Your task to perform on an android device: Open the map Image 0: 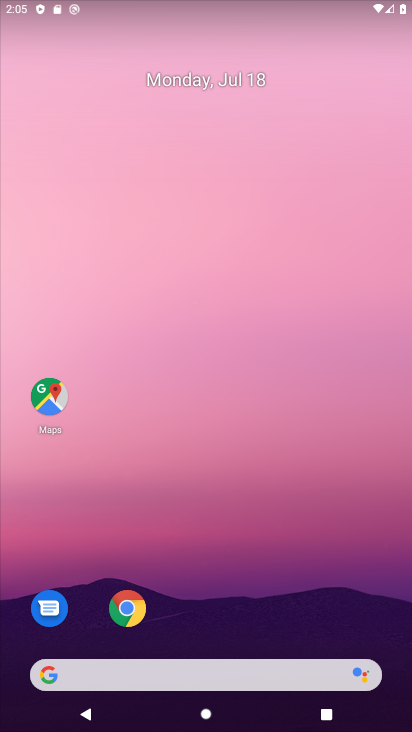
Step 0: click (51, 384)
Your task to perform on an android device: Open the map Image 1: 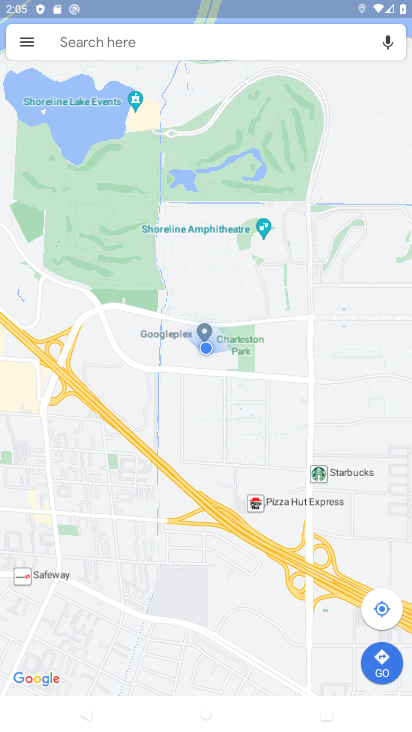
Step 1: task complete